Your task to perform on an android device: toggle notification dots Image 0: 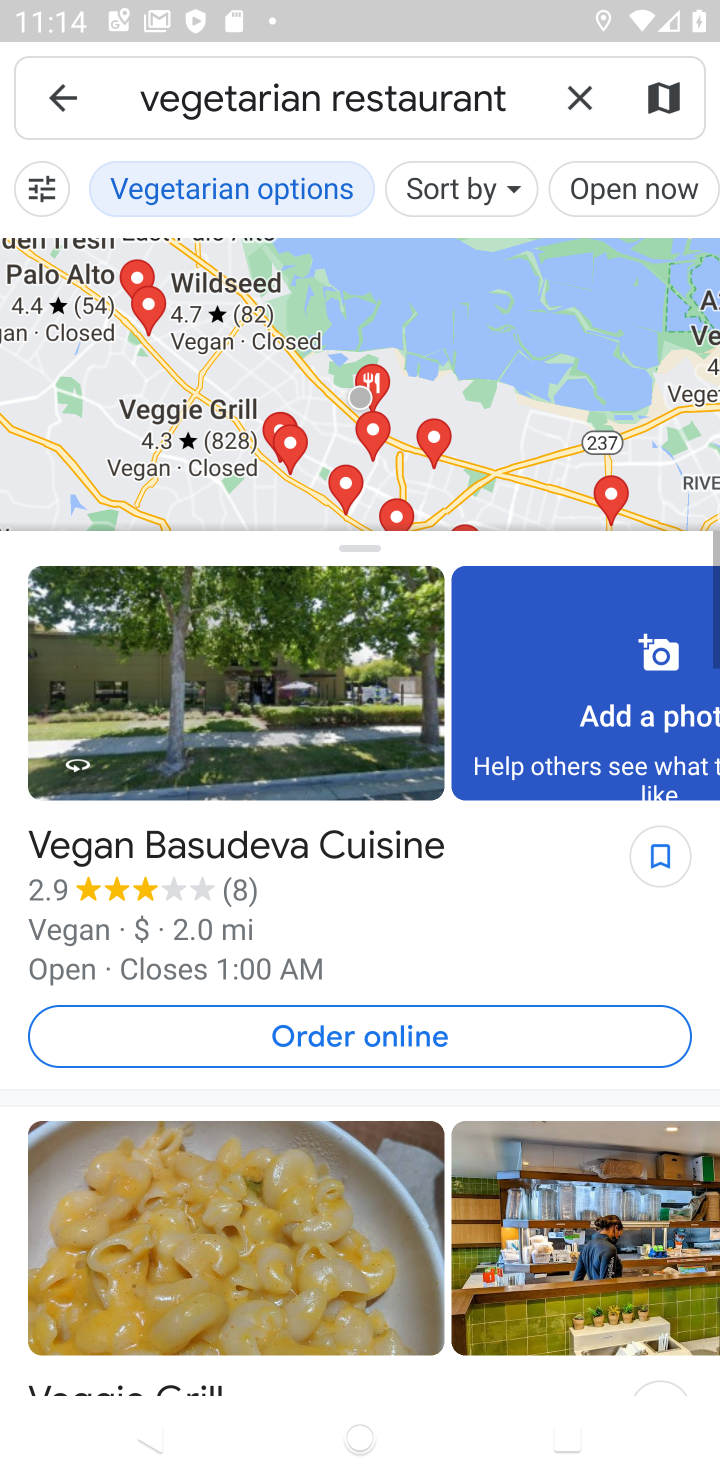
Step 0: press home button
Your task to perform on an android device: toggle notification dots Image 1: 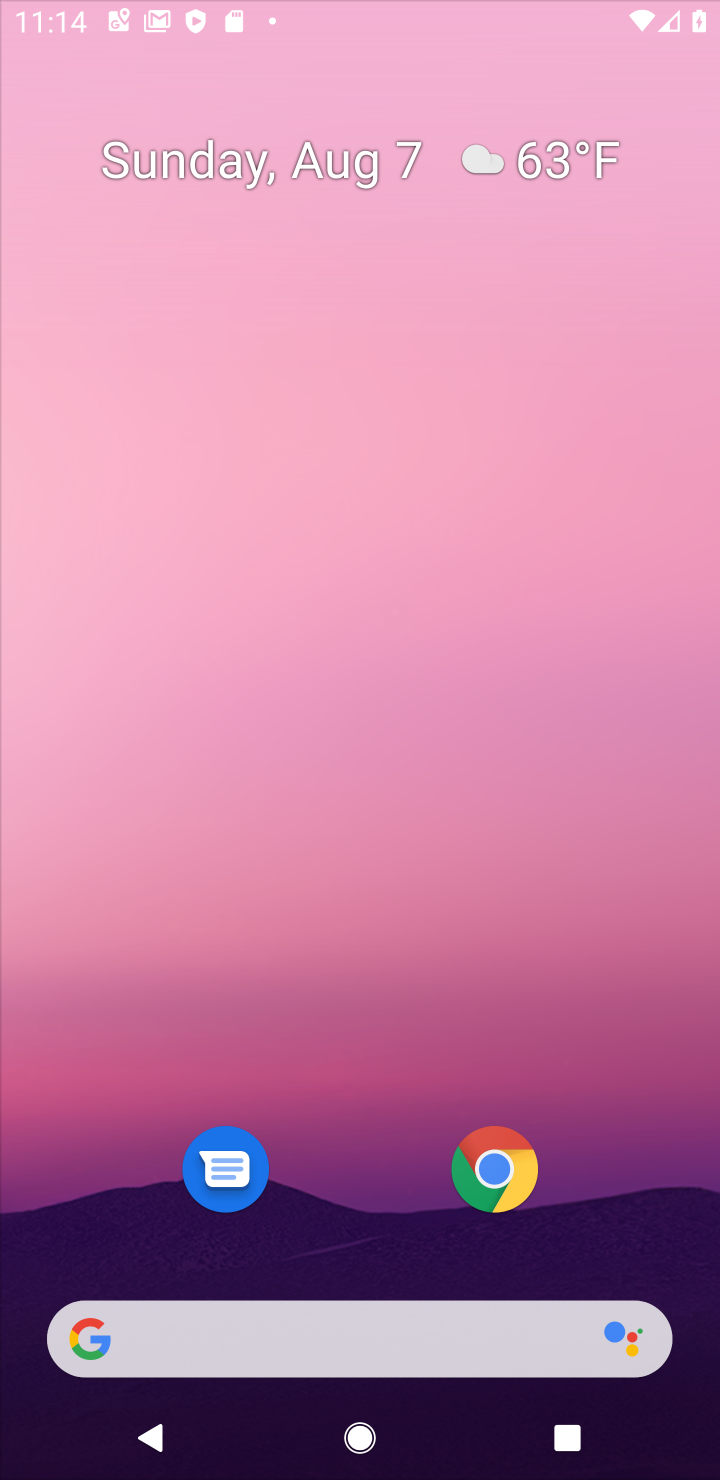
Step 1: press back button
Your task to perform on an android device: toggle notification dots Image 2: 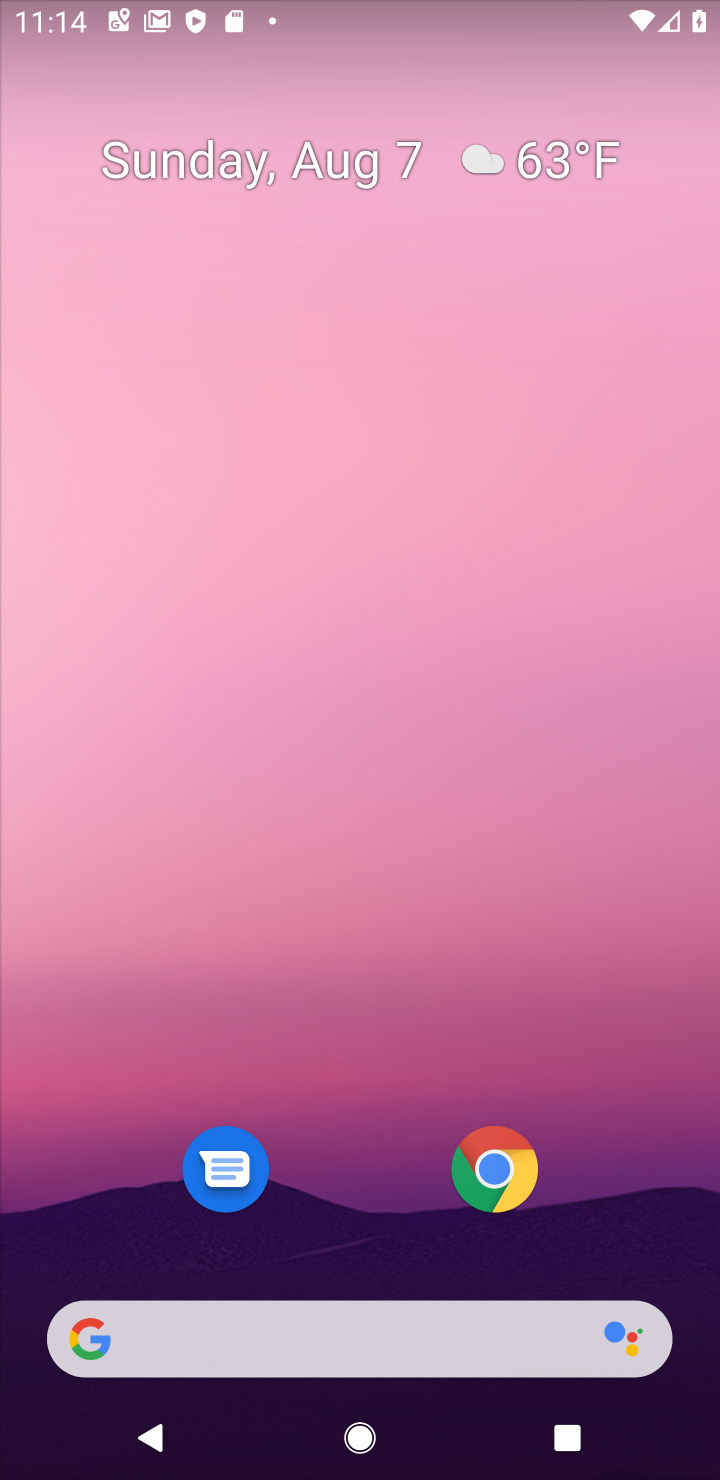
Step 2: drag from (434, 1231) to (343, 16)
Your task to perform on an android device: toggle notification dots Image 3: 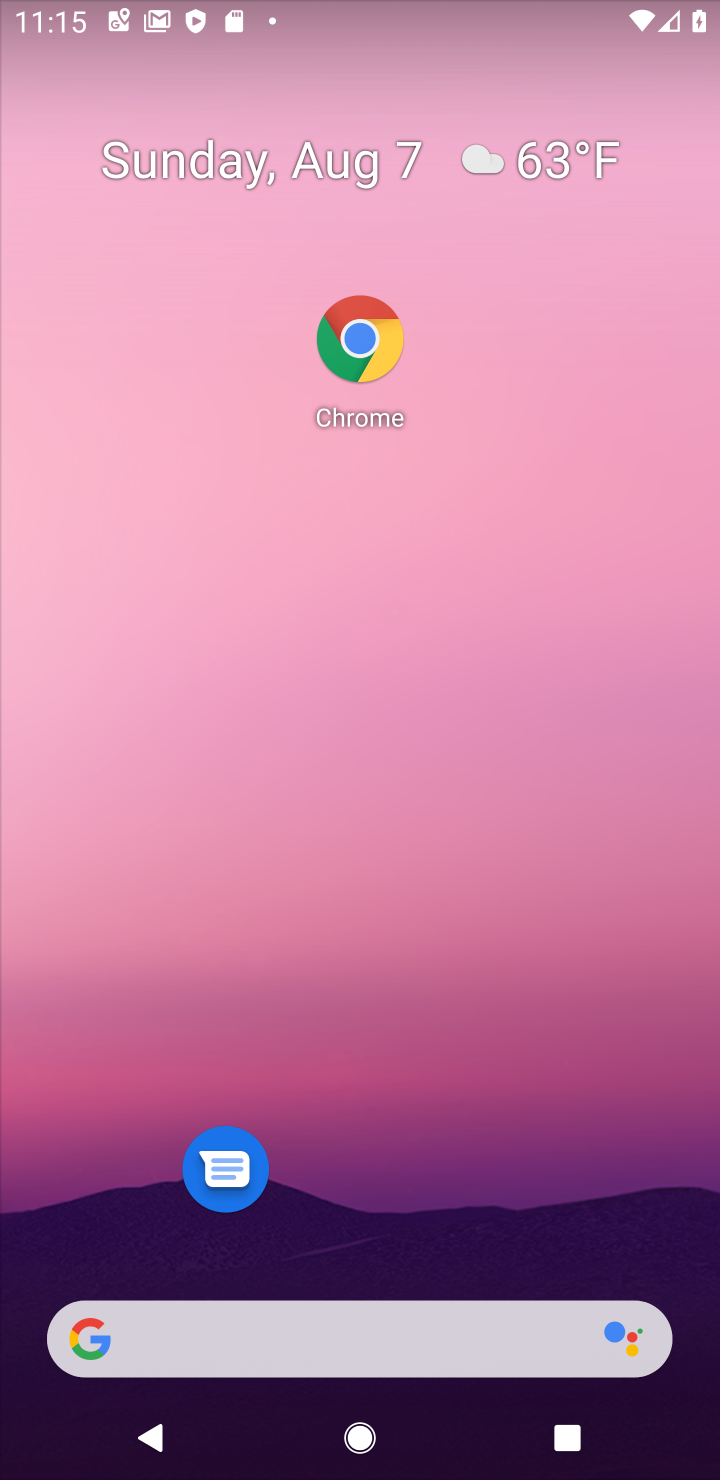
Step 3: drag from (371, 1225) to (380, 36)
Your task to perform on an android device: toggle notification dots Image 4: 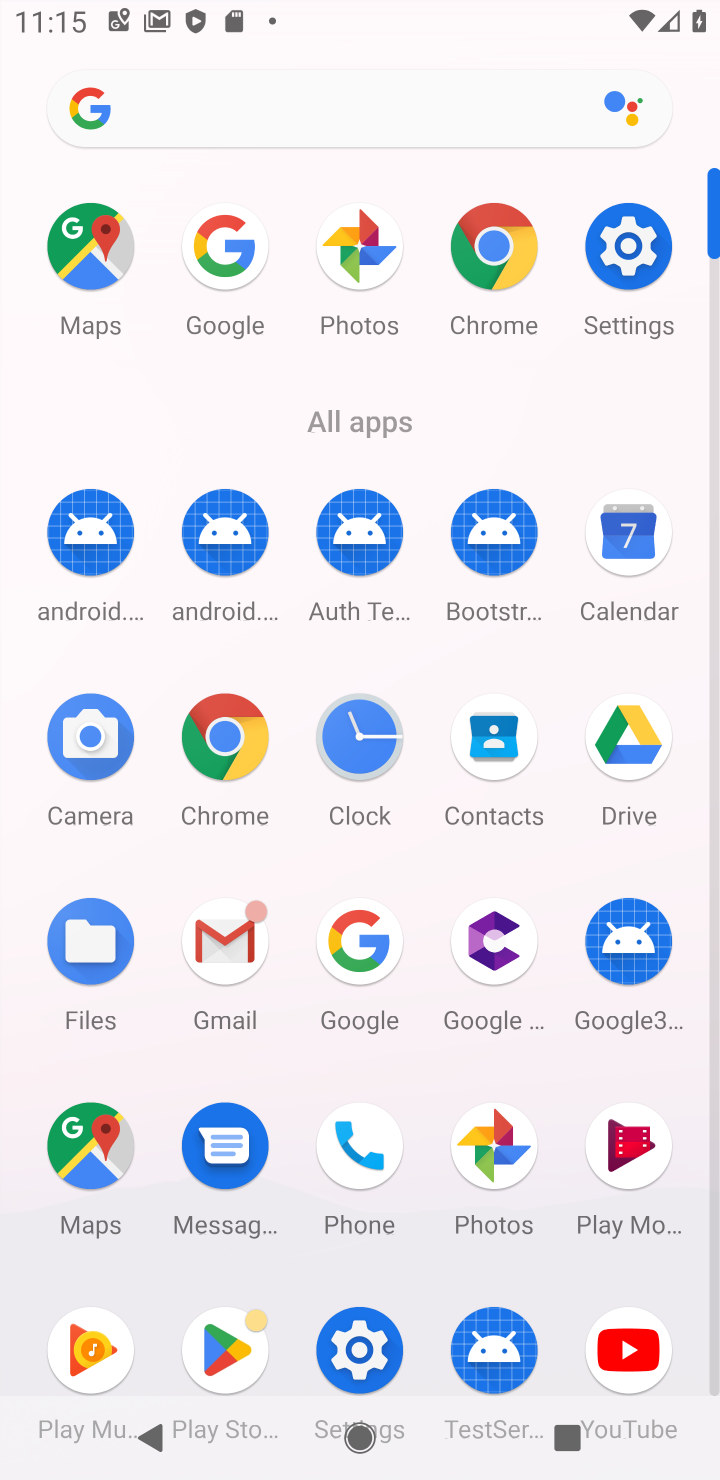
Step 4: click (648, 295)
Your task to perform on an android device: toggle notification dots Image 5: 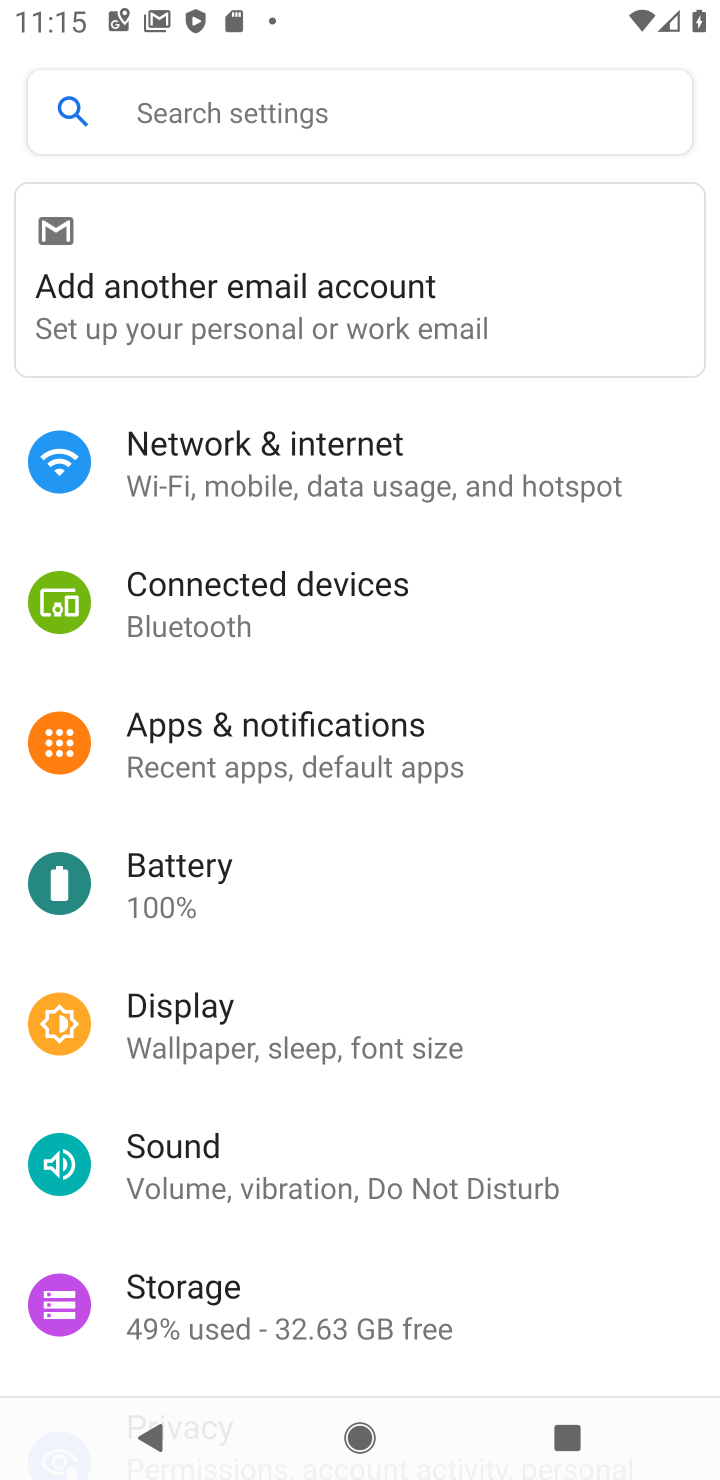
Step 5: click (306, 783)
Your task to perform on an android device: toggle notification dots Image 6: 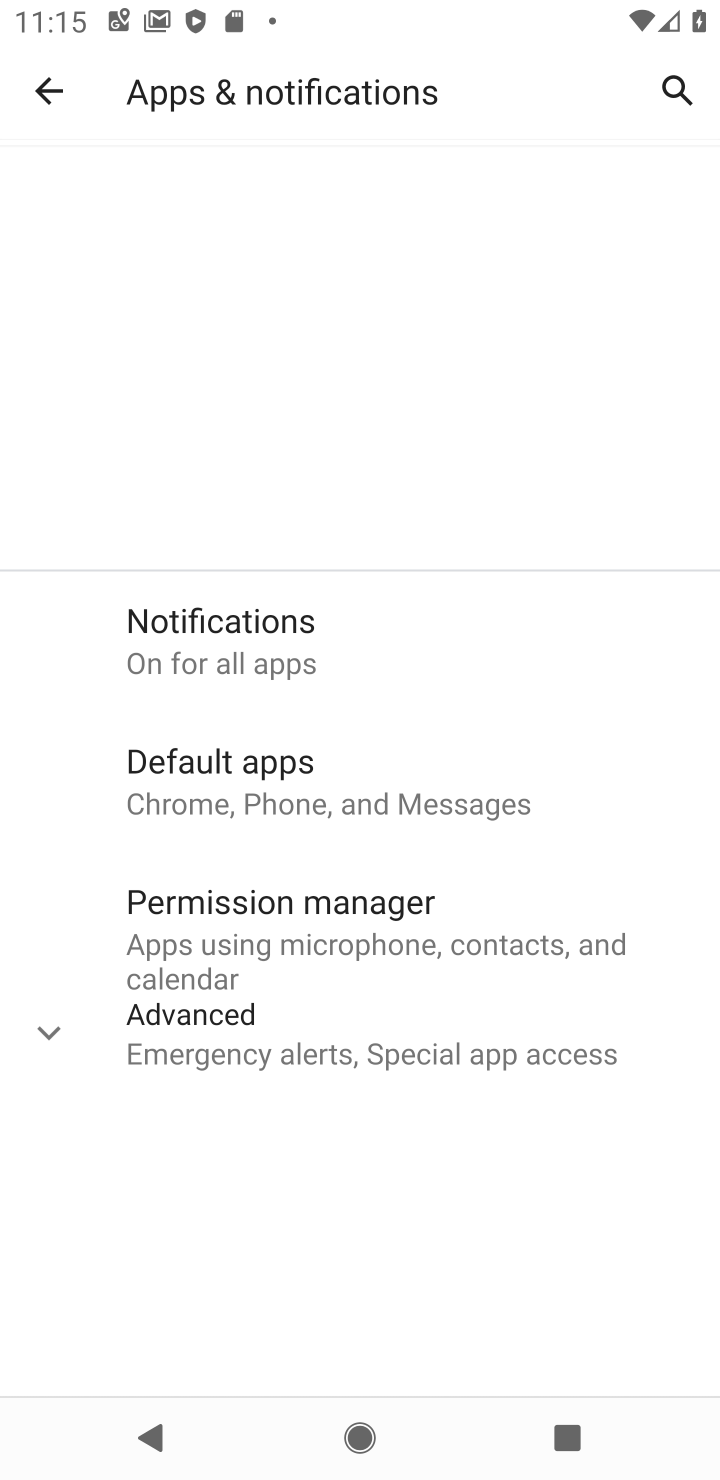
Step 6: click (302, 642)
Your task to perform on an android device: toggle notification dots Image 7: 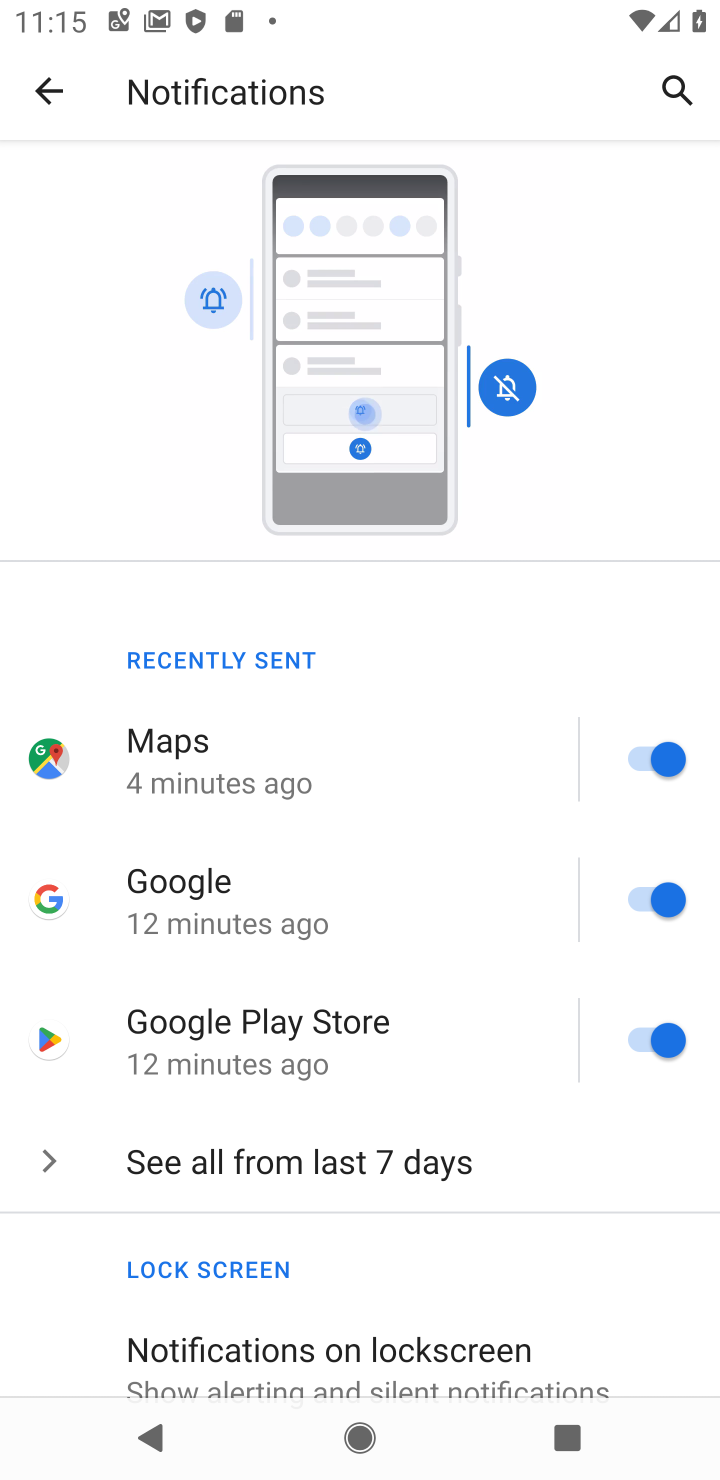
Step 7: drag from (255, 1248) to (198, 254)
Your task to perform on an android device: toggle notification dots Image 8: 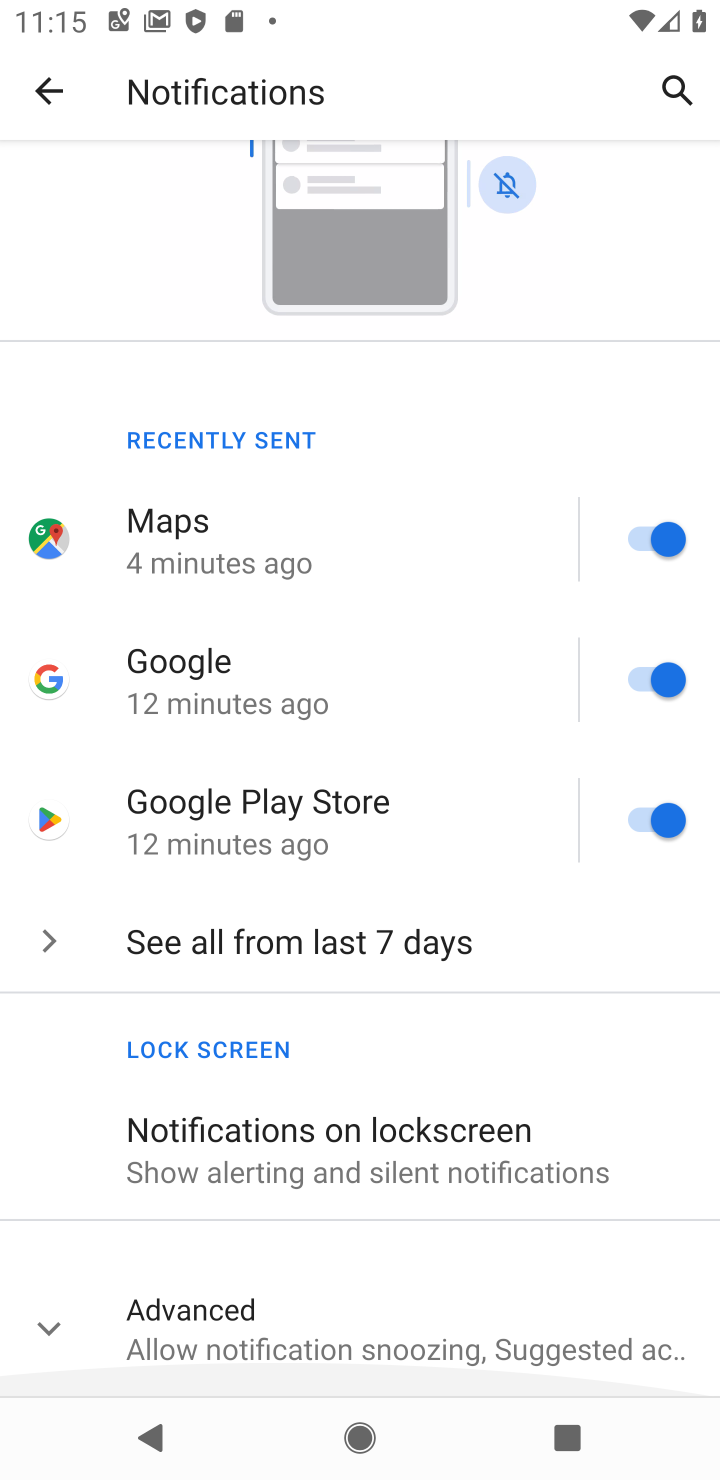
Step 8: drag from (492, 1315) to (442, 553)
Your task to perform on an android device: toggle notification dots Image 9: 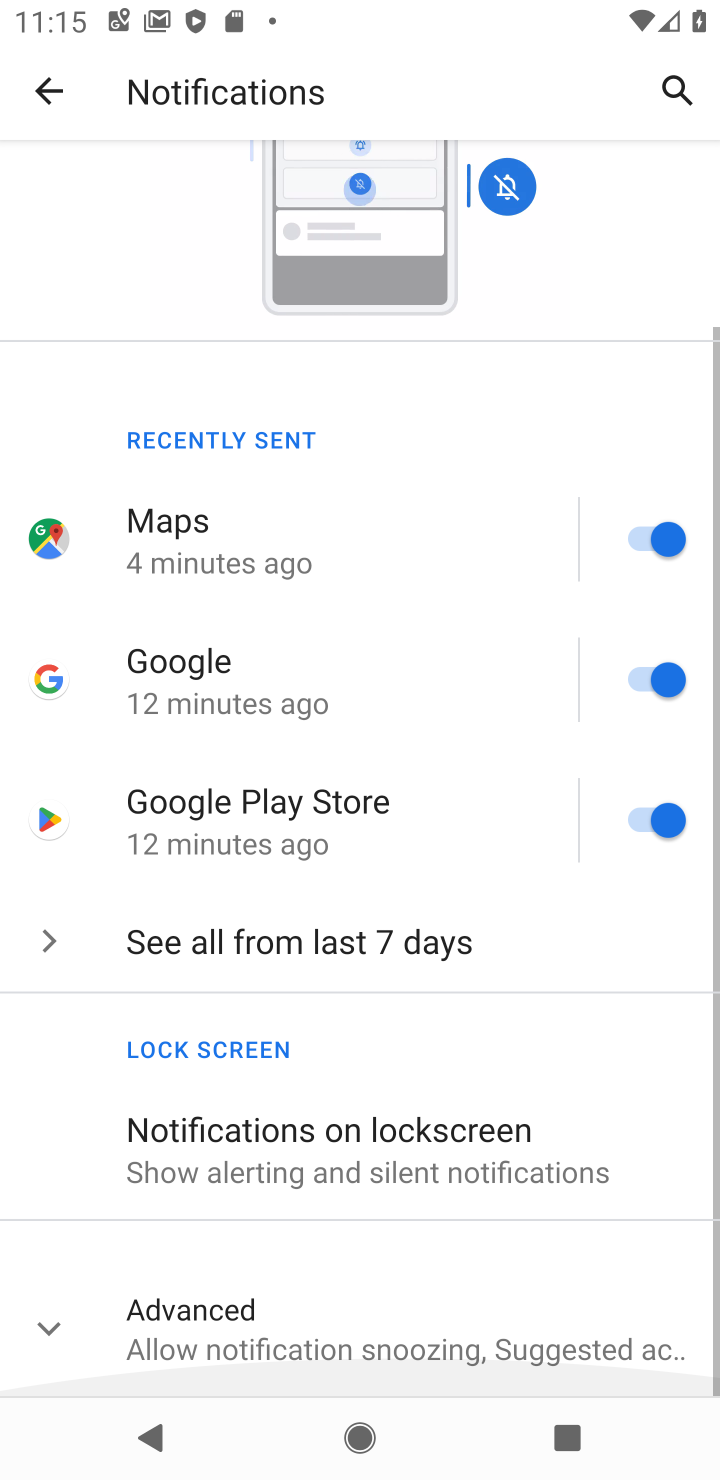
Step 9: click (142, 1288)
Your task to perform on an android device: toggle notification dots Image 10: 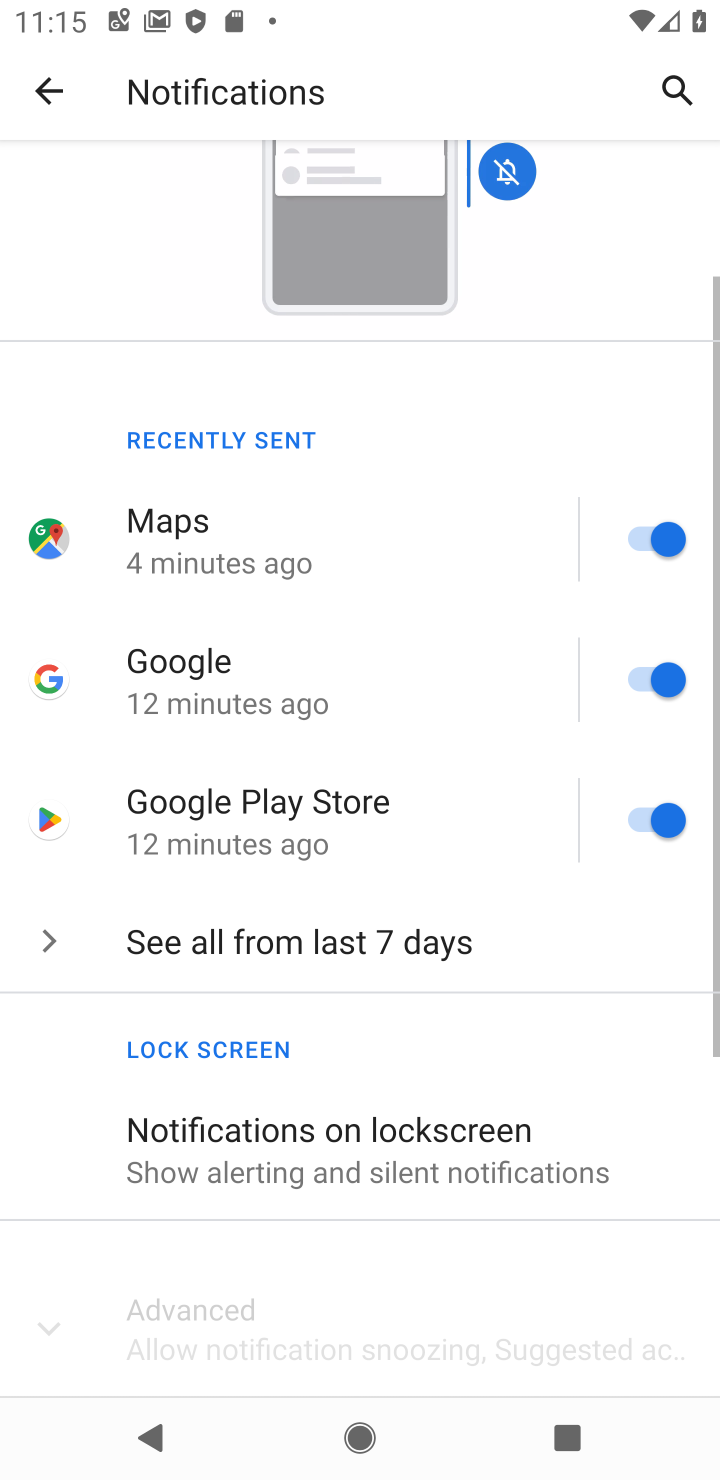
Step 10: drag from (240, 1299) to (218, 320)
Your task to perform on an android device: toggle notification dots Image 11: 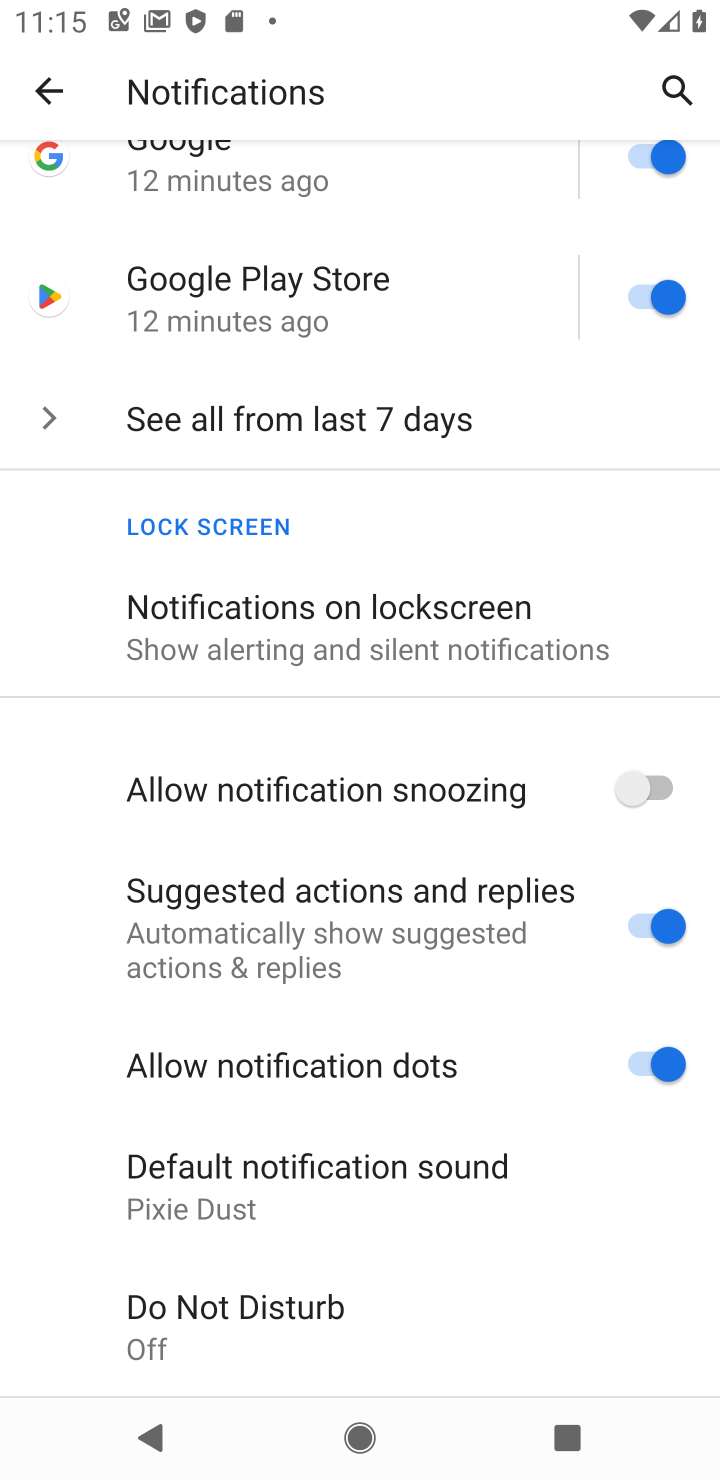
Step 11: click (662, 1060)
Your task to perform on an android device: toggle notification dots Image 12: 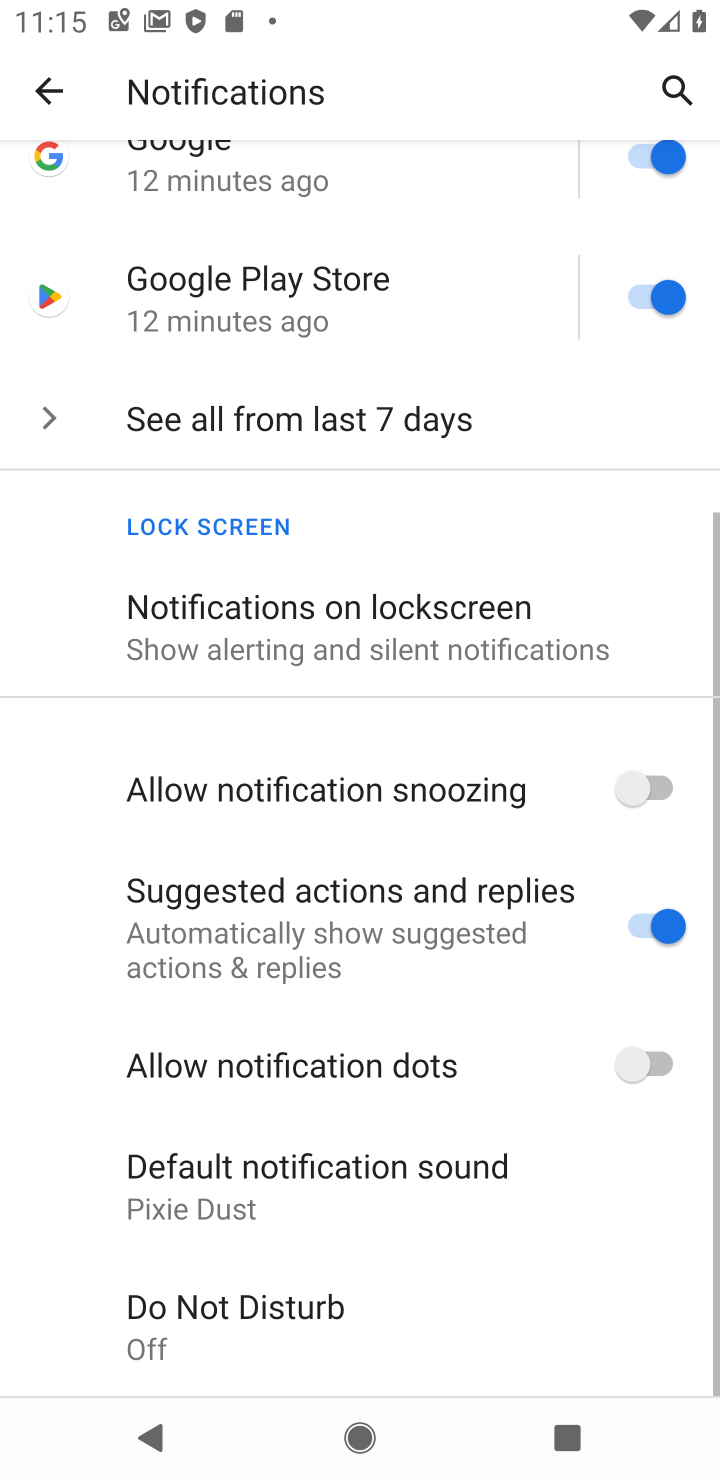
Step 12: task complete